Your task to perform on an android device: turn on wifi Image 0: 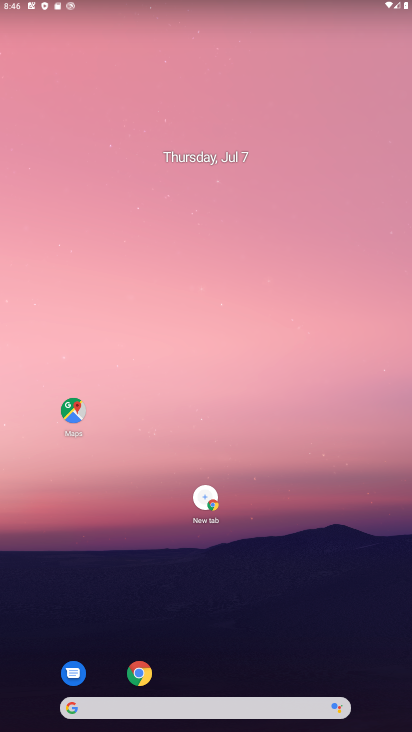
Step 0: press home button
Your task to perform on an android device: turn on wifi Image 1: 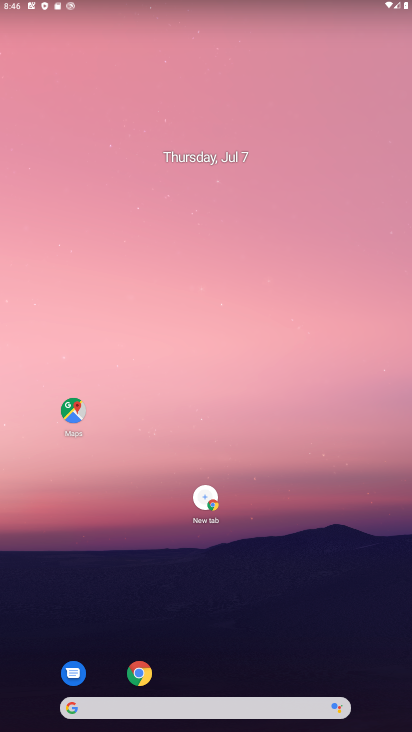
Step 1: task complete